Your task to perform on an android device: Install the Starbucks app Image 0: 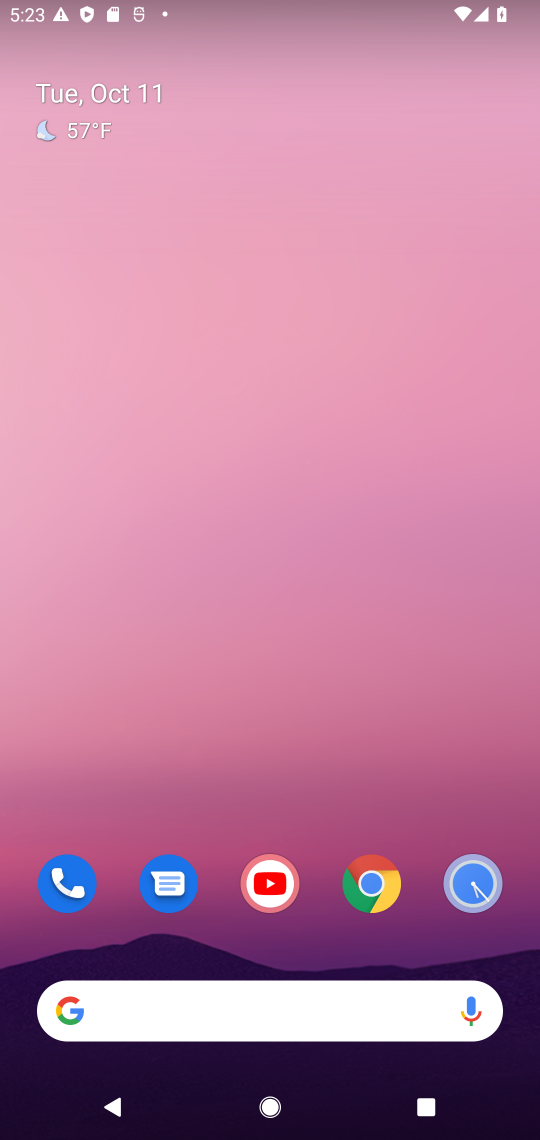
Step 0: drag from (318, 891) to (329, 228)
Your task to perform on an android device: Install the Starbucks app Image 1: 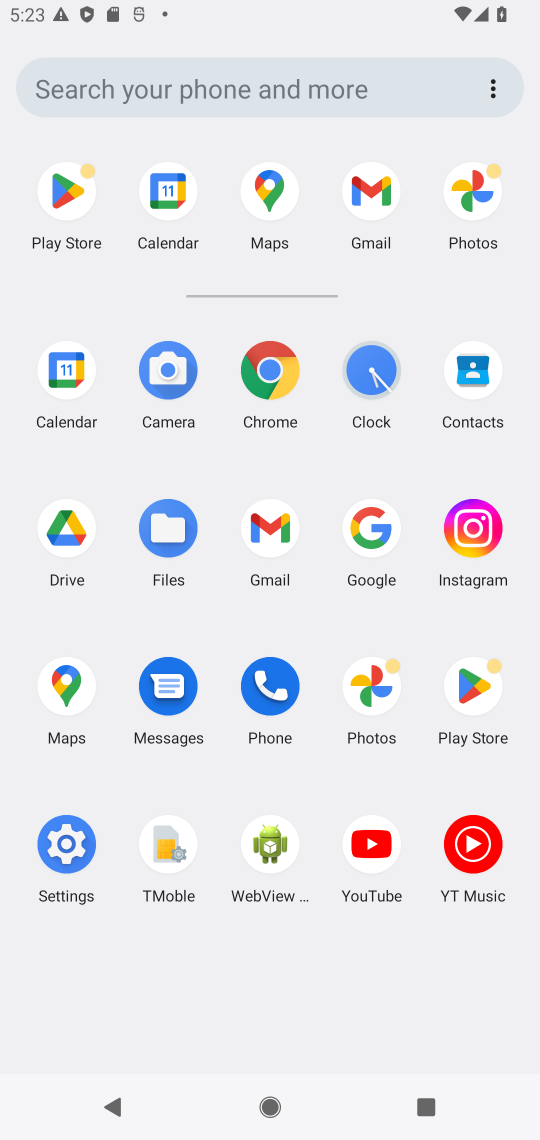
Step 1: click (476, 684)
Your task to perform on an android device: Install the Starbucks app Image 2: 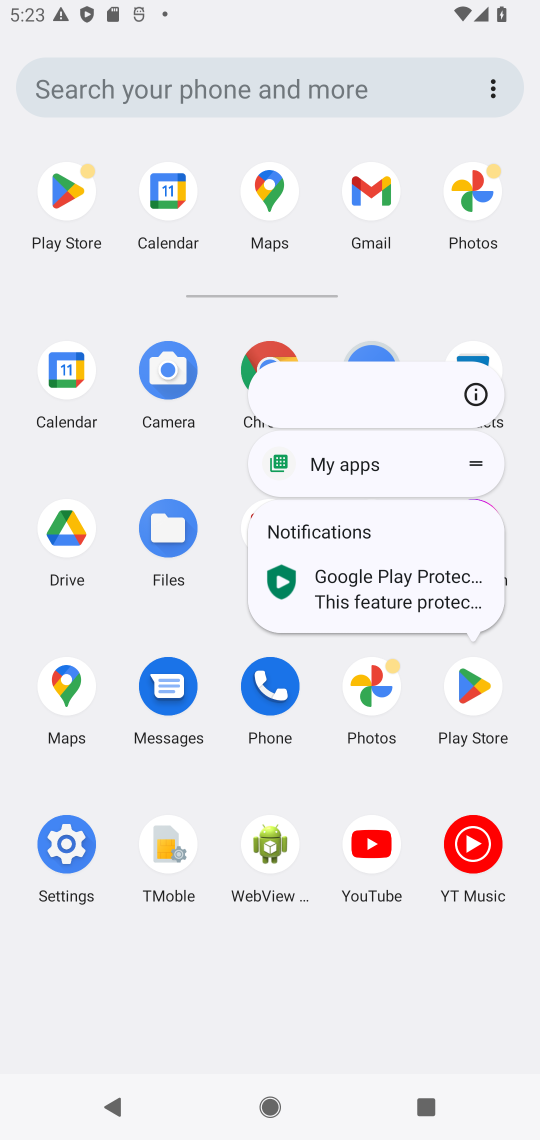
Step 2: click (476, 684)
Your task to perform on an android device: Install the Starbucks app Image 3: 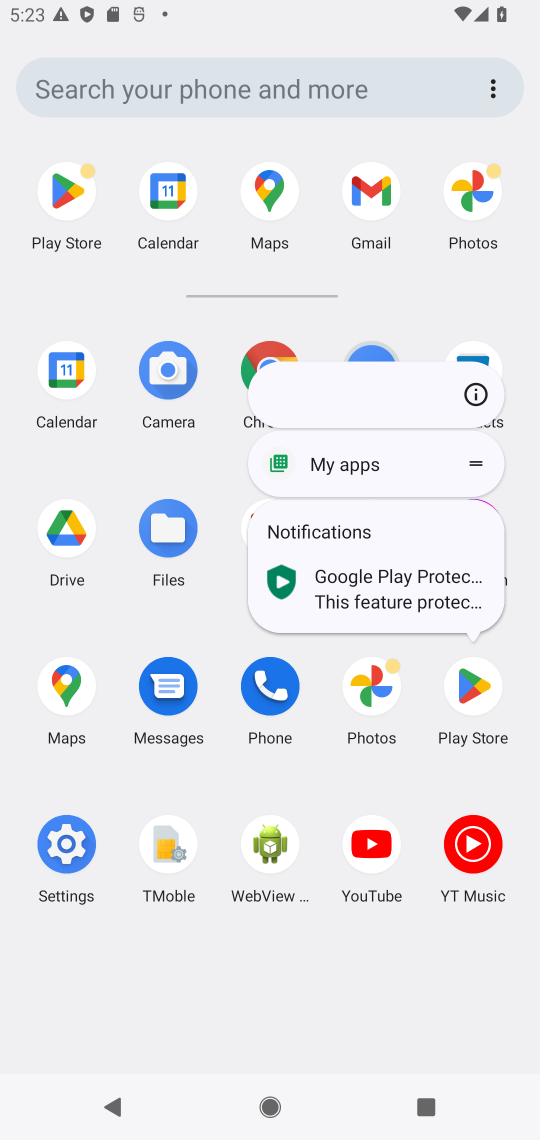
Step 3: click (464, 688)
Your task to perform on an android device: Install the Starbucks app Image 4: 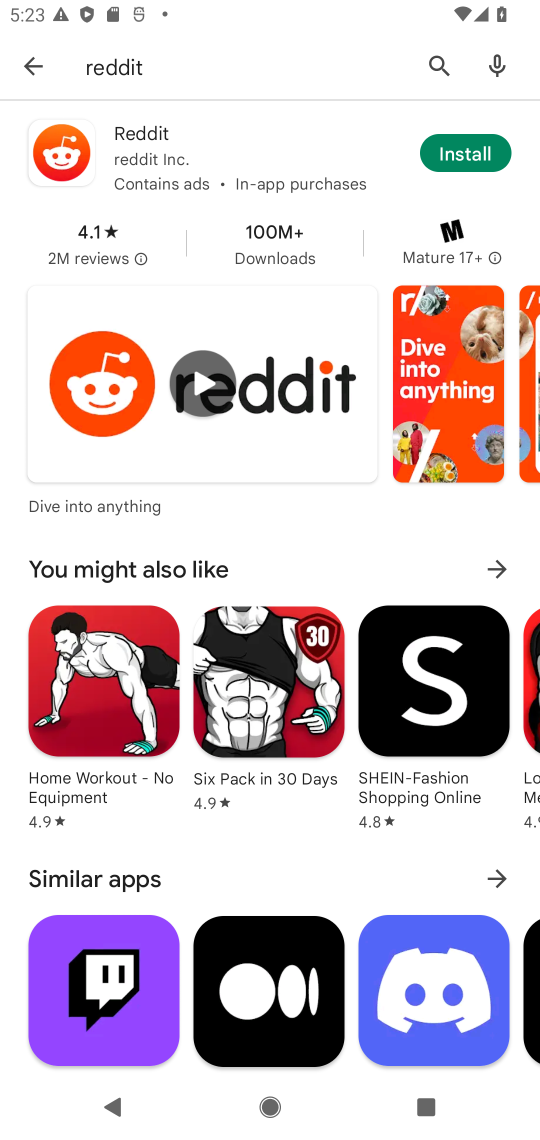
Step 4: click (254, 72)
Your task to perform on an android device: Install the Starbucks app Image 5: 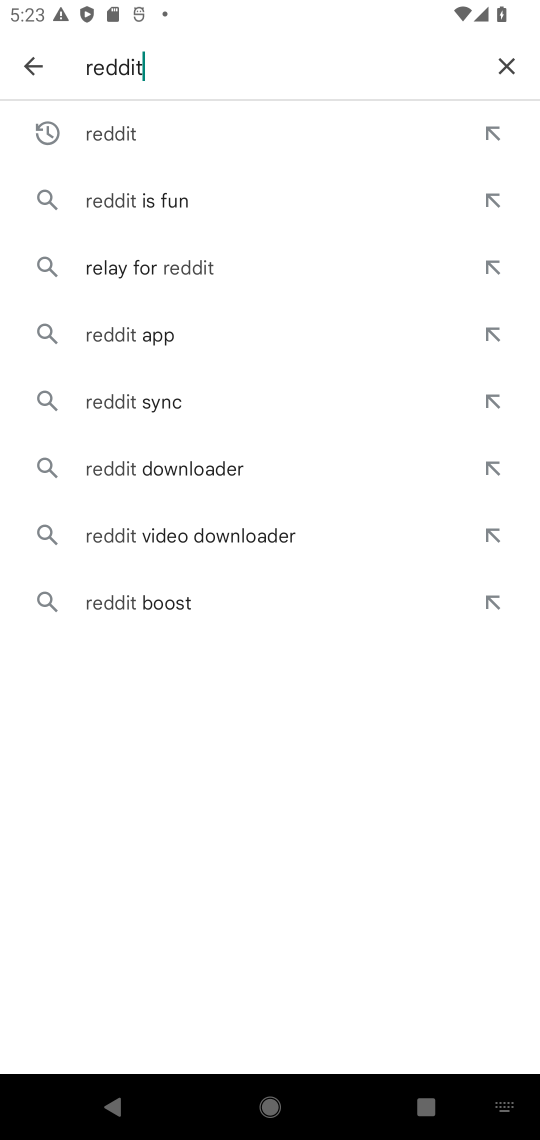
Step 5: click (504, 61)
Your task to perform on an android device: Install the Starbucks app Image 6: 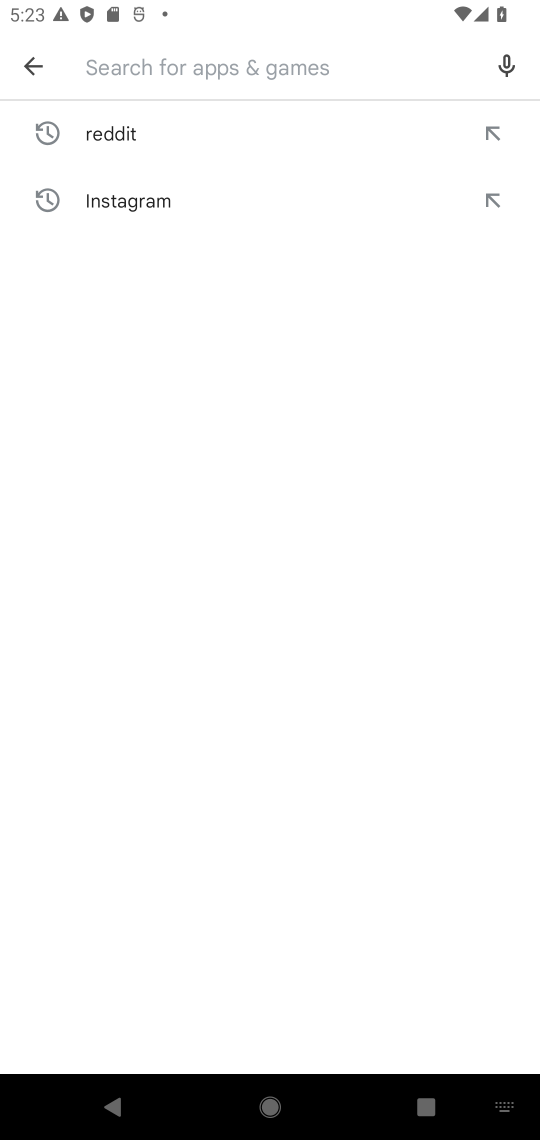
Step 6: type "Install the Starbucks app"
Your task to perform on an android device: Install the Starbucks app Image 7: 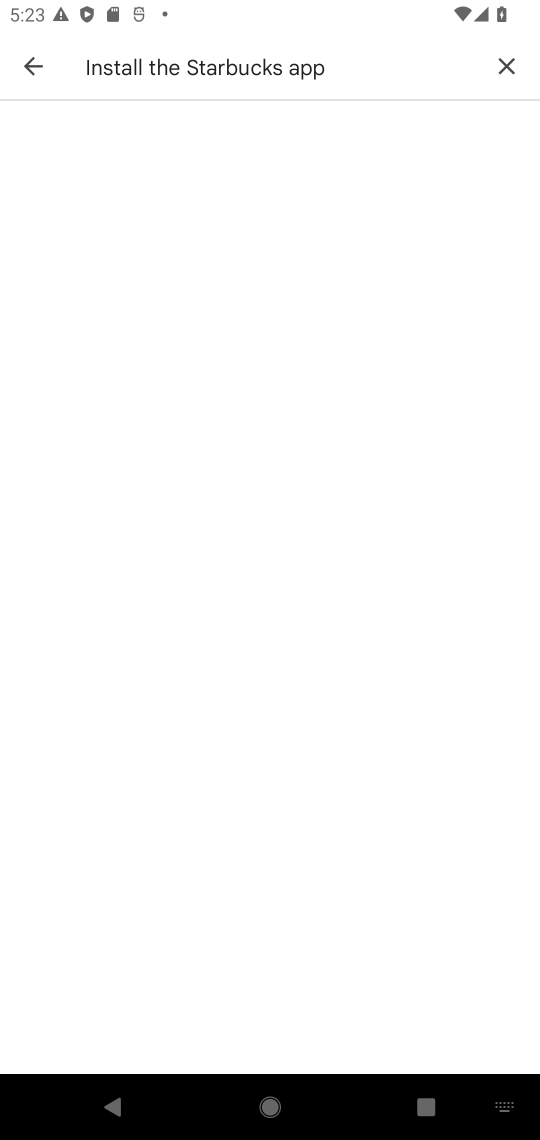
Step 7: press enter
Your task to perform on an android device: Install the Starbucks app Image 8: 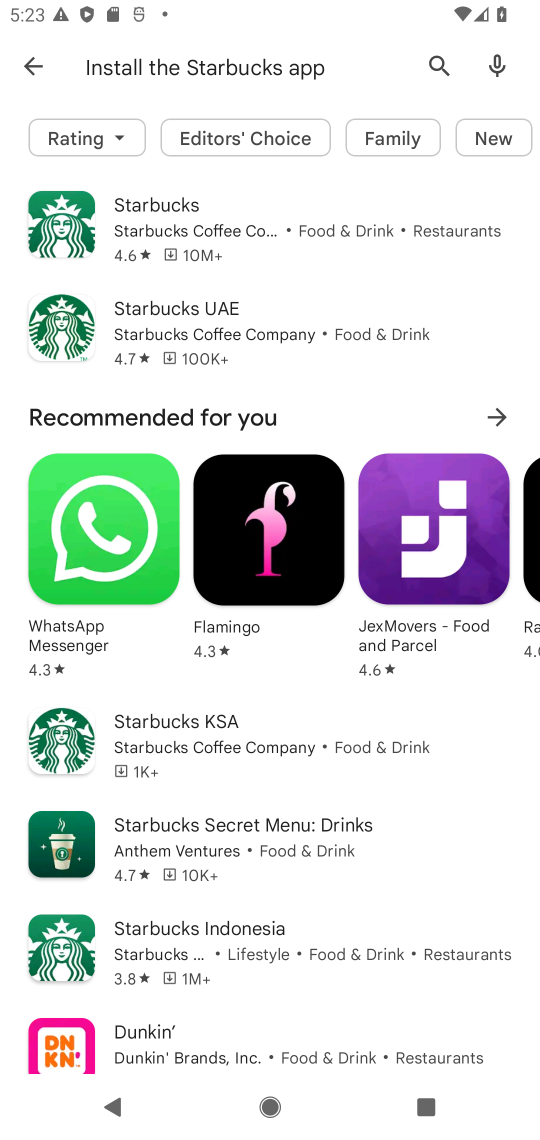
Step 8: click (199, 212)
Your task to perform on an android device: Install the Starbucks app Image 9: 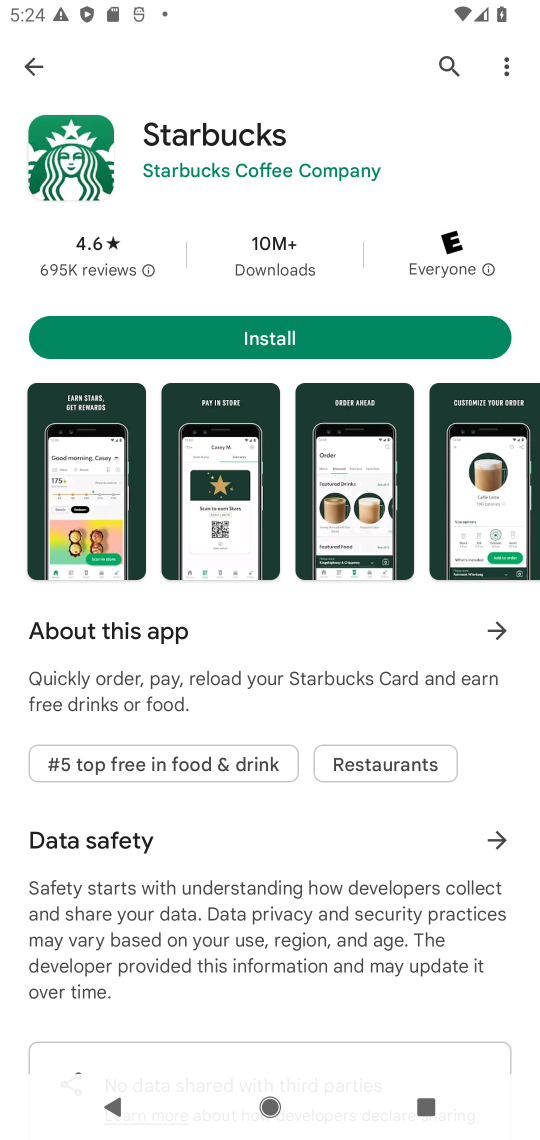
Step 9: click (315, 324)
Your task to perform on an android device: Install the Starbucks app Image 10: 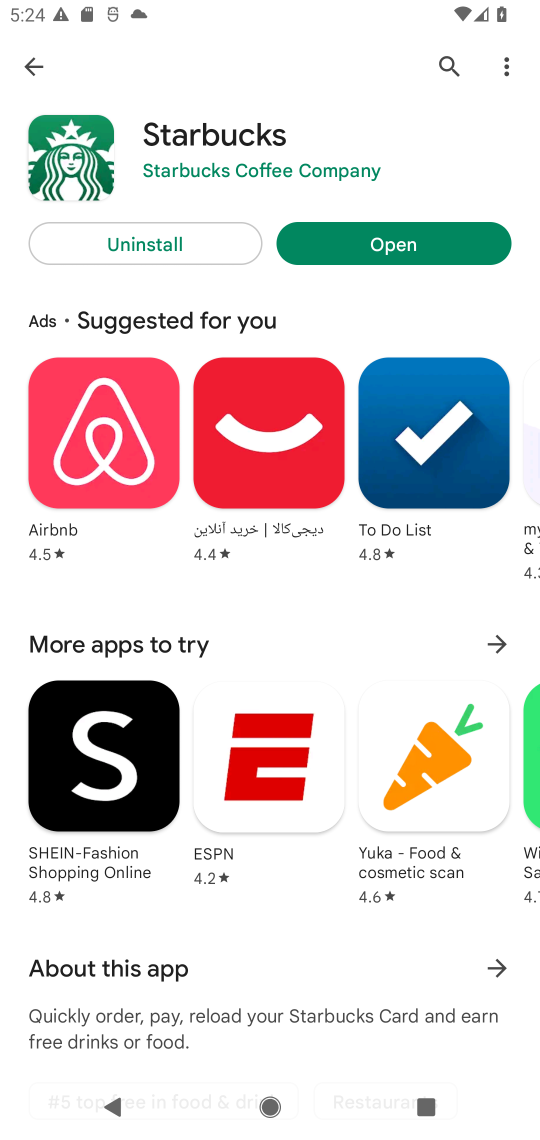
Step 10: task complete